Your task to perform on an android device: Open location settings Image 0: 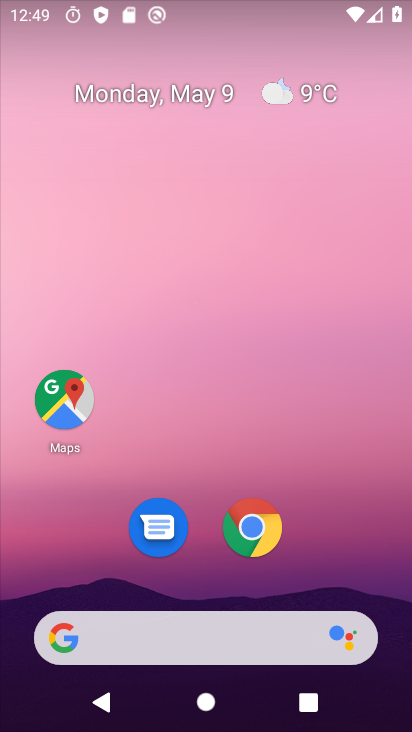
Step 0: drag from (208, 474) to (292, 9)
Your task to perform on an android device: Open location settings Image 1: 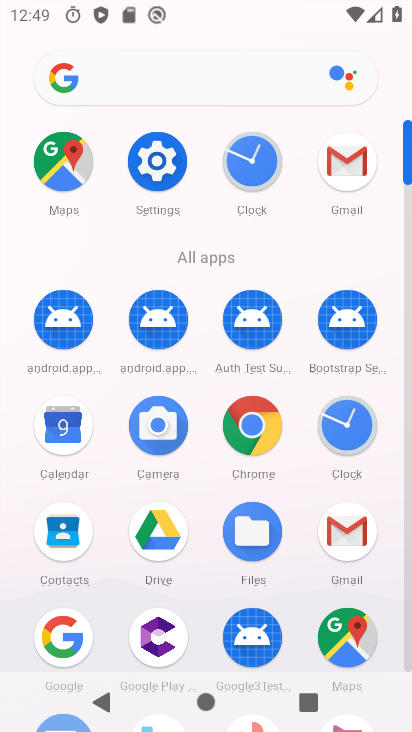
Step 1: click (167, 146)
Your task to perform on an android device: Open location settings Image 2: 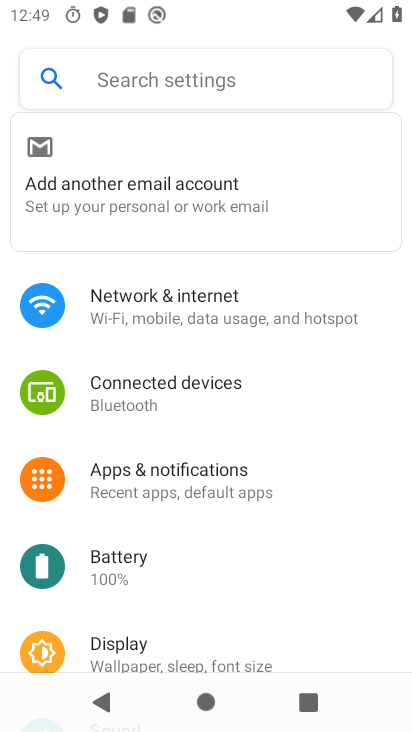
Step 2: drag from (151, 605) to (218, 121)
Your task to perform on an android device: Open location settings Image 3: 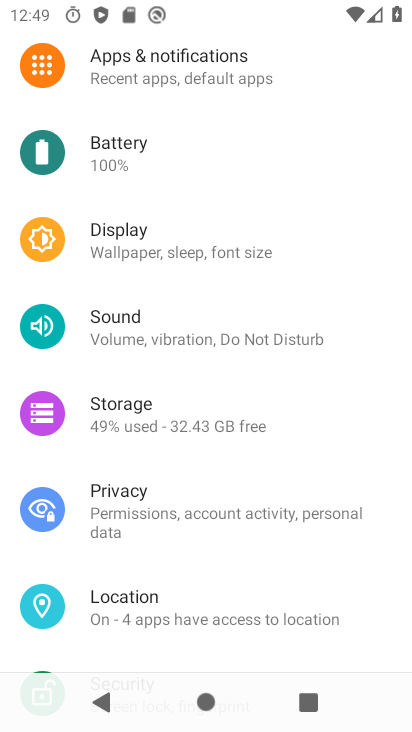
Step 3: click (134, 614)
Your task to perform on an android device: Open location settings Image 4: 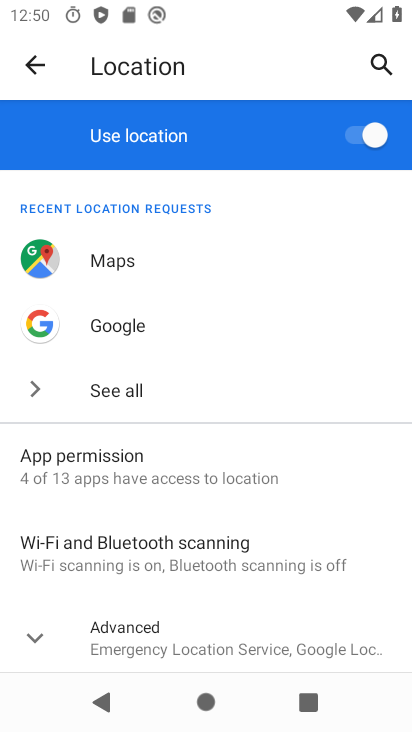
Step 4: task complete